Your task to perform on an android device: Show me the alarms in the clock app Image 0: 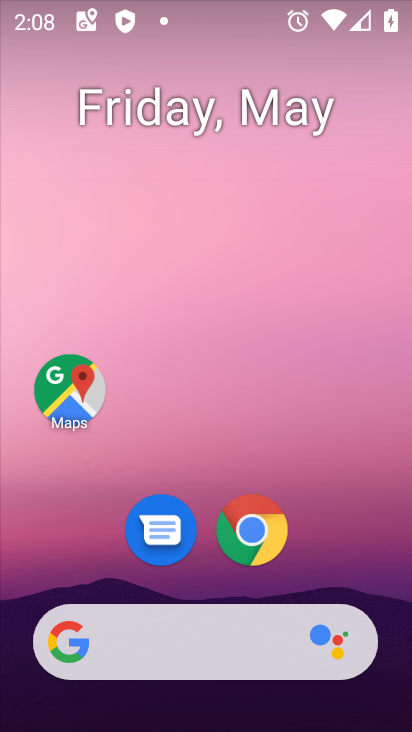
Step 0: drag from (301, 368) to (313, 15)
Your task to perform on an android device: Show me the alarms in the clock app Image 1: 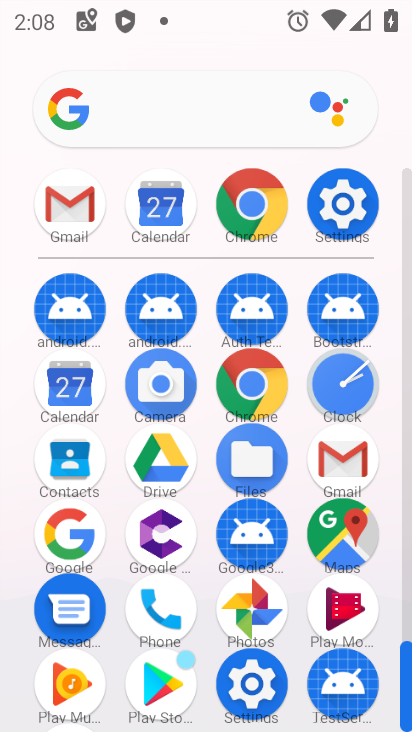
Step 1: click (339, 381)
Your task to perform on an android device: Show me the alarms in the clock app Image 2: 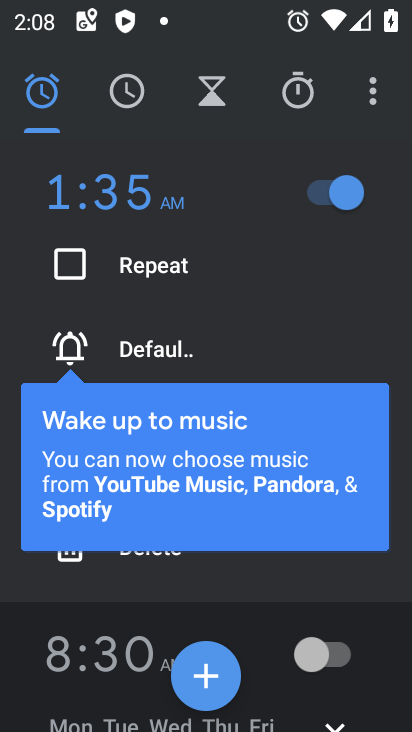
Step 2: task complete